Your task to perform on an android device: change the clock display to digital Image 0: 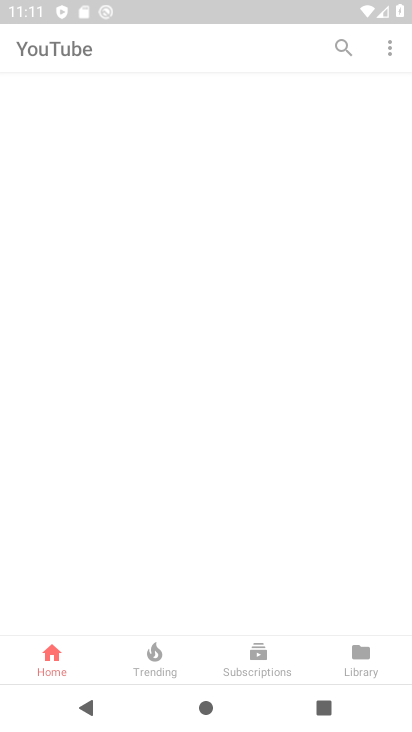
Step 0: drag from (268, 549) to (302, 88)
Your task to perform on an android device: change the clock display to digital Image 1: 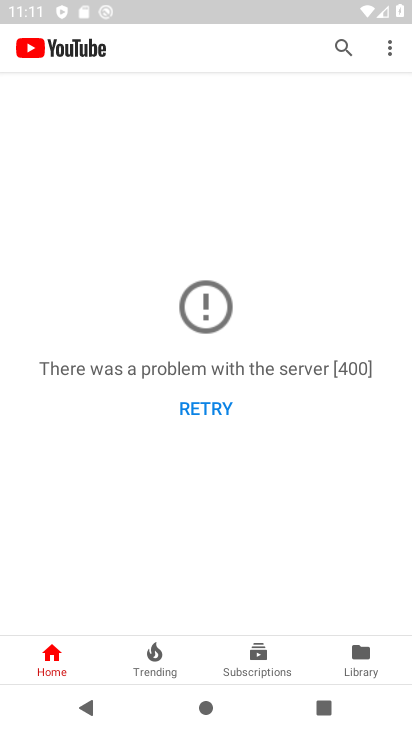
Step 1: press home button
Your task to perform on an android device: change the clock display to digital Image 2: 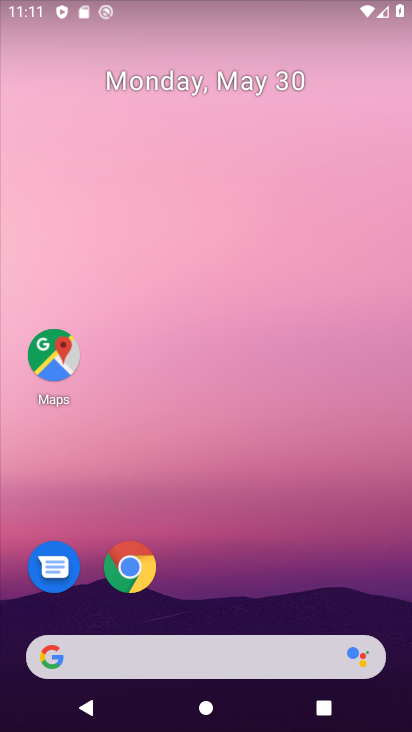
Step 2: drag from (327, 603) to (328, 114)
Your task to perform on an android device: change the clock display to digital Image 3: 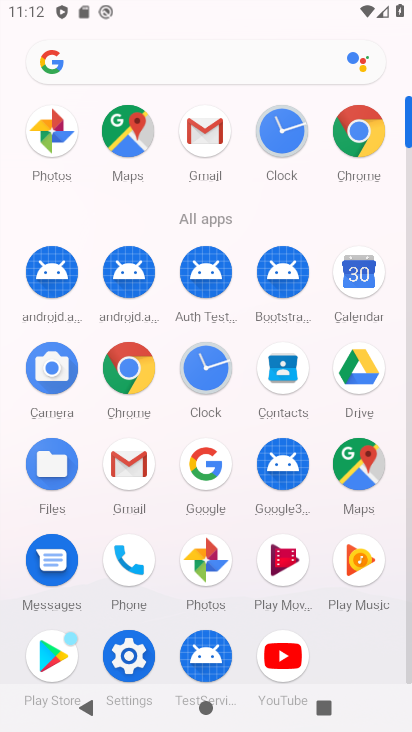
Step 3: click (191, 377)
Your task to perform on an android device: change the clock display to digital Image 4: 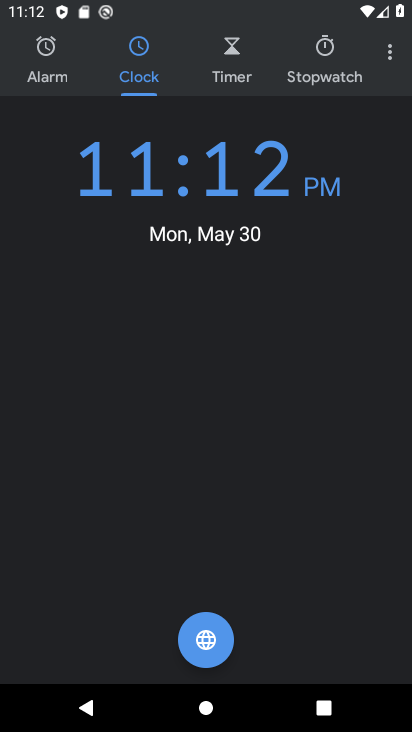
Step 4: task complete